Your task to perform on an android device: delete a single message in the gmail app Image 0: 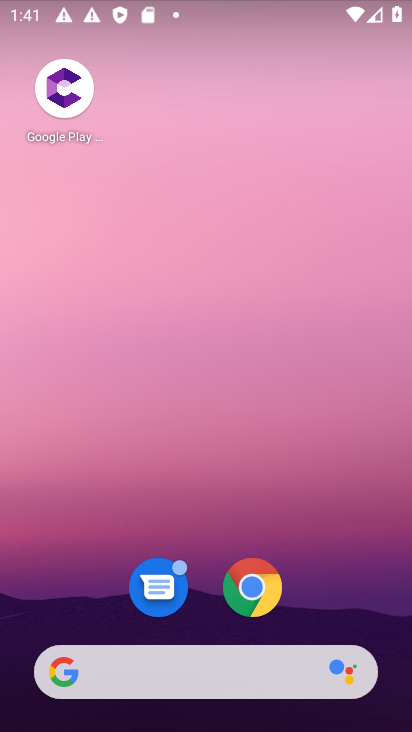
Step 0: drag from (199, 582) to (267, 11)
Your task to perform on an android device: delete a single message in the gmail app Image 1: 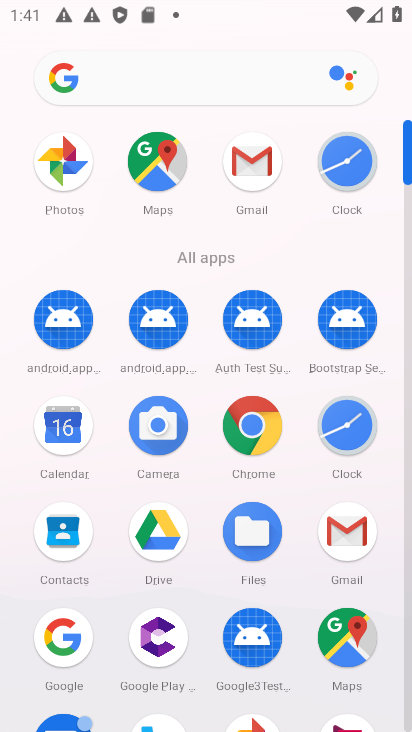
Step 1: click (273, 163)
Your task to perform on an android device: delete a single message in the gmail app Image 2: 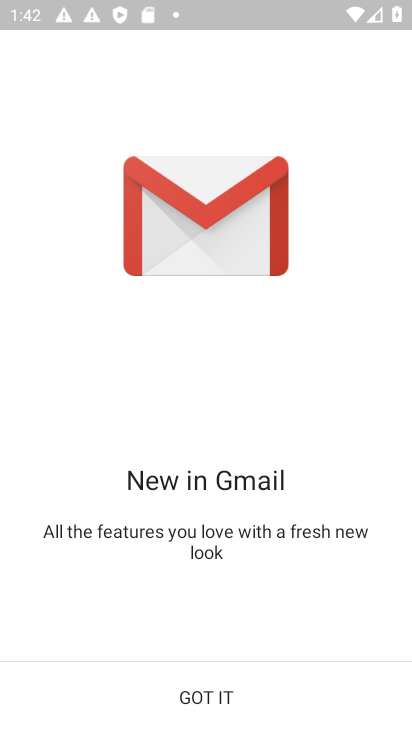
Step 2: click (185, 702)
Your task to perform on an android device: delete a single message in the gmail app Image 3: 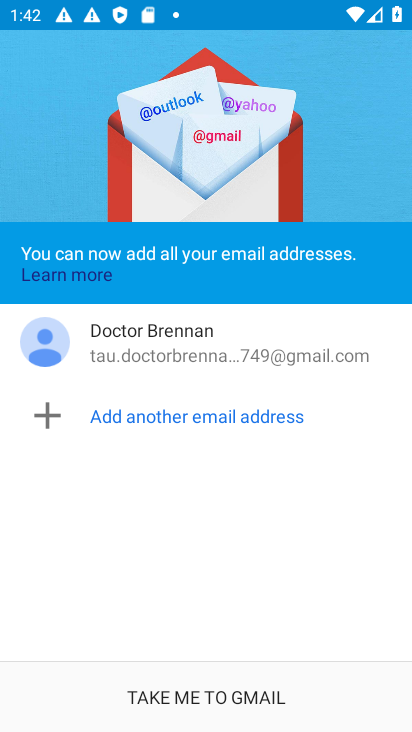
Step 3: click (189, 697)
Your task to perform on an android device: delete a single message in the gmail app Image 4: 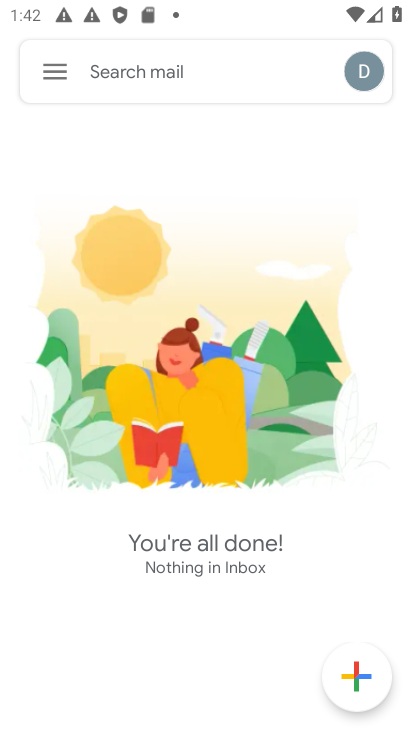
Step 4: click (43, 65)
Your task to perform on an android device: delete a single message in the gmail app Image 5: 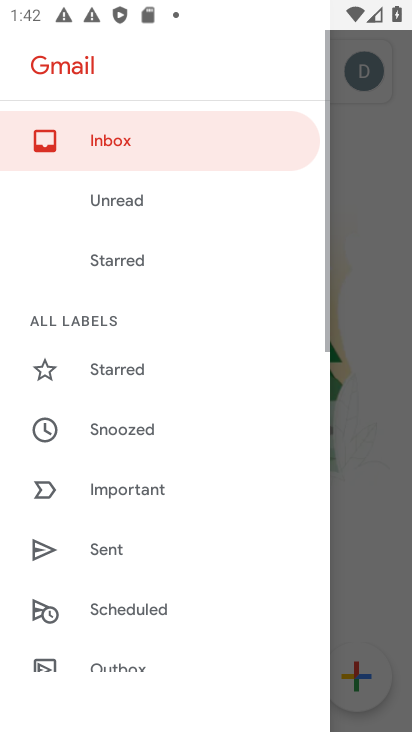
Step 5: drag from (152, 598) to (254, 40)
Your task to perform on an android device: delete a single message in the gmail app Image 6: 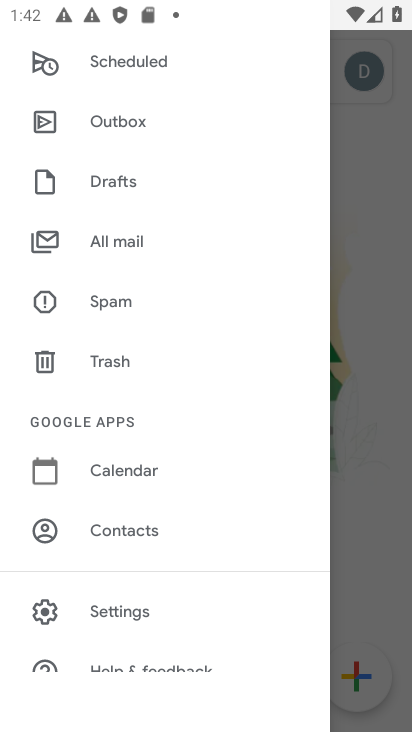
Step 6: click (134, 236)
Your task to perform on an android device: delete a single message in the gmail app Image 7: 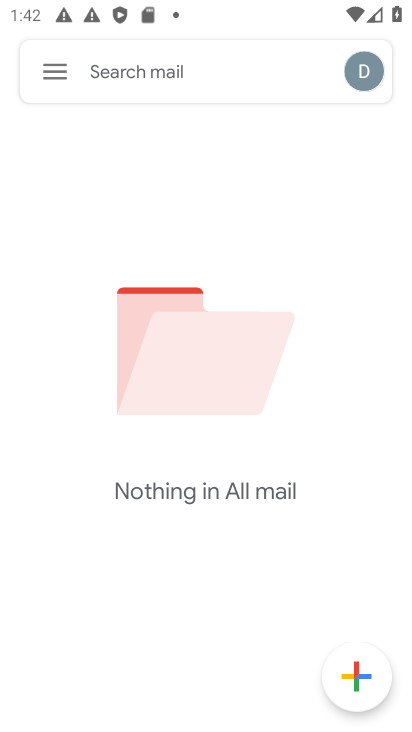
Step 7: task complete